Your task to perform on an android device: read, delete, or share a saved page in the chrome app Image 0: 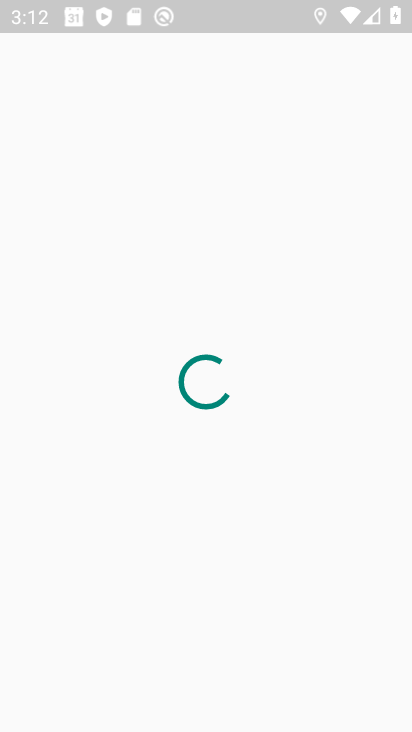
Step 0: press home button
Your task to perform on an android device: read, delete, or share a saved page in the chrome app Image 1: 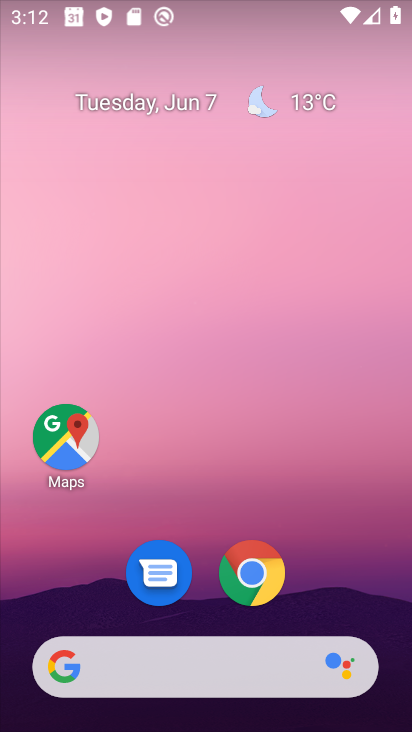
Step 1: drag from (378, 586) to (282, 126)
Your task to perform on an android device: read, delete, or share a saved page in the chrome app Image 2: 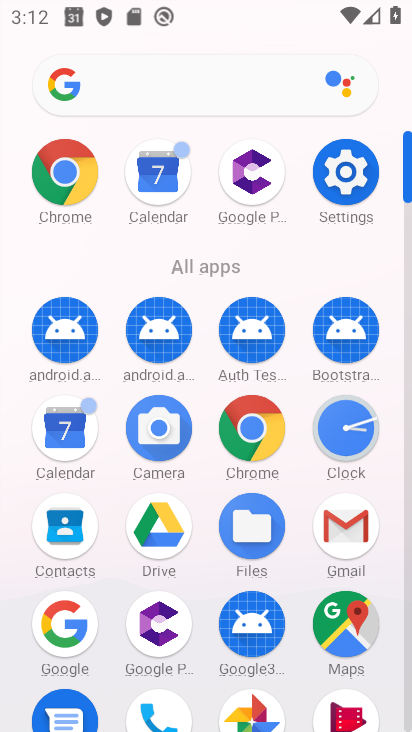
Step 2: click (79, 187)
Your task to perform on an android device: read, delete, or share a saved page in the chrome app Image 3: 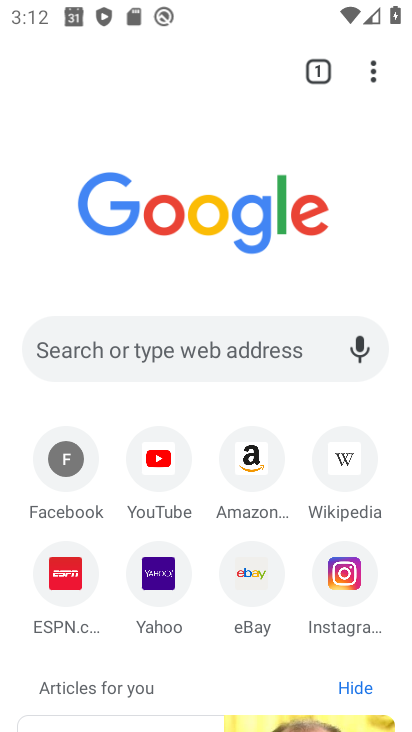
Step 3: click (381, 72)
Your task to perform on an android device: read, delete, or share a saved page in the chrome app Image 4: 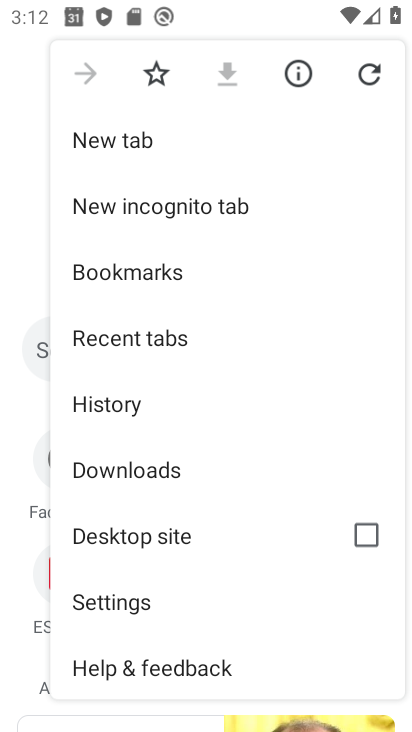
Step 4: click (160, 466)
Your task to perform on an android device: read, delete, or share a saved page in the chrome app Image 5: 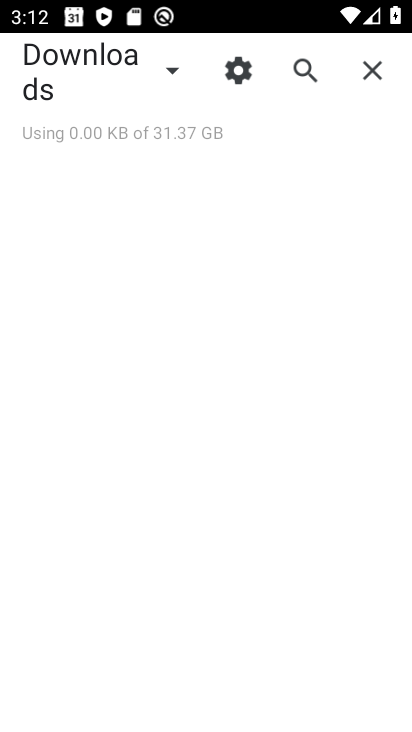
Step 5: click (169, 75)
Your task to perform on an android device: read, delete, or share a saved page in the chrome app Image 6: 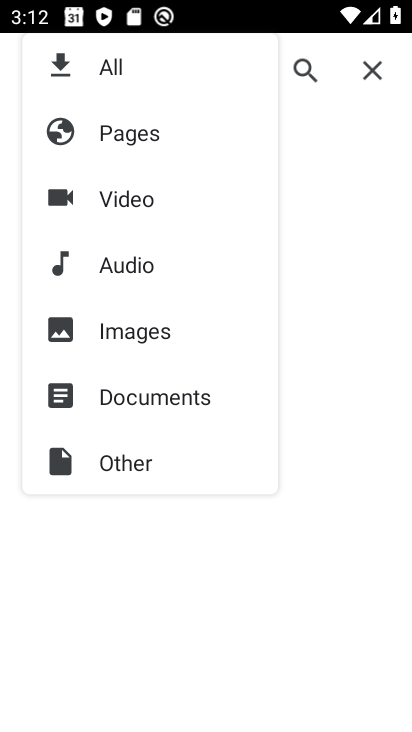
Step 6: click (142, 139)
Your task to perform on an android device: read, delete, or share a saved page in the chrome app Image 7: 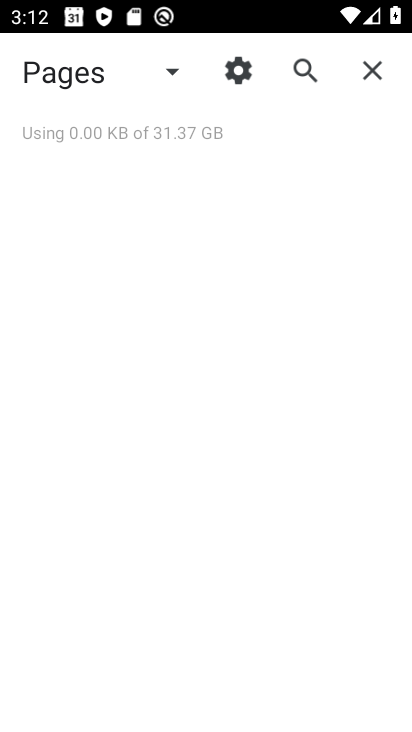
Step 7: task complete